Your task to perform on an android device: Go to Google maps Image 0: 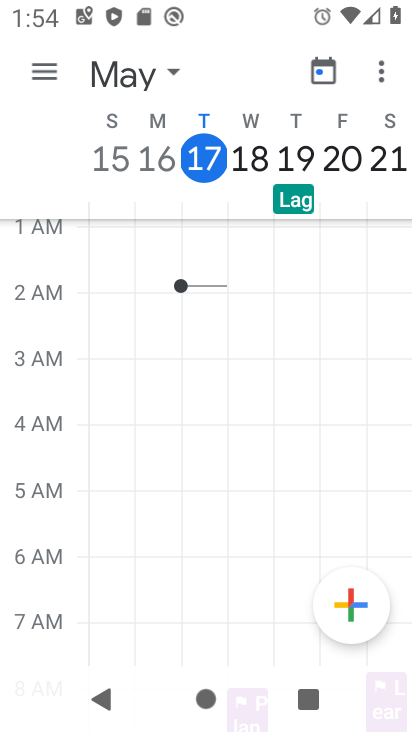
Step 0: press home button
Your task to perform on an android device: Go to Google maps Image 1: 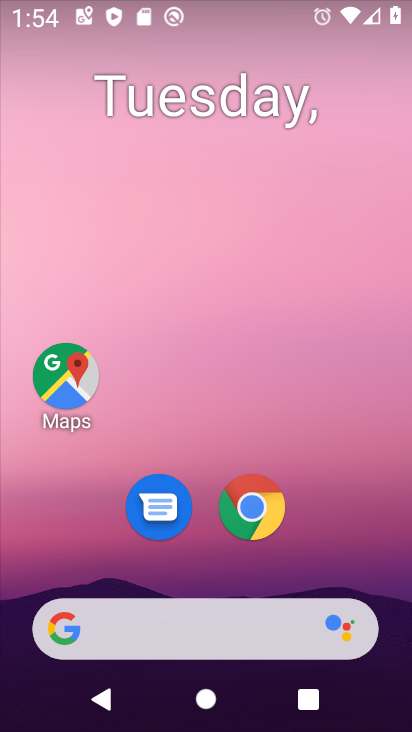
Step 1: click (58, 361)
Your task to perform on an android device: Go to Google maps Image 2: 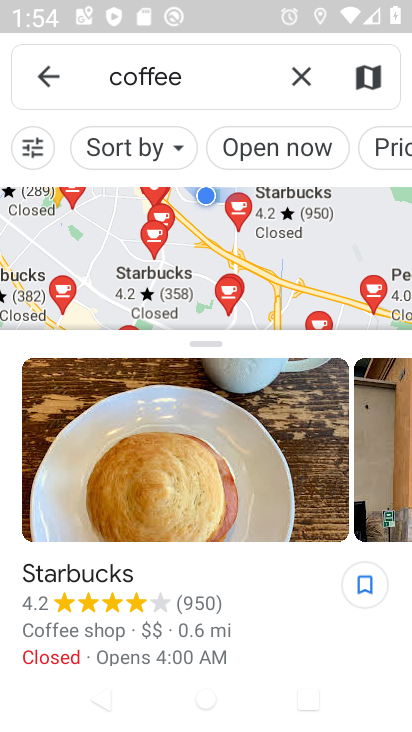
Step 2: task complete